Your task to perform on an android device: turn on the 24-hour format for clock Image 0: 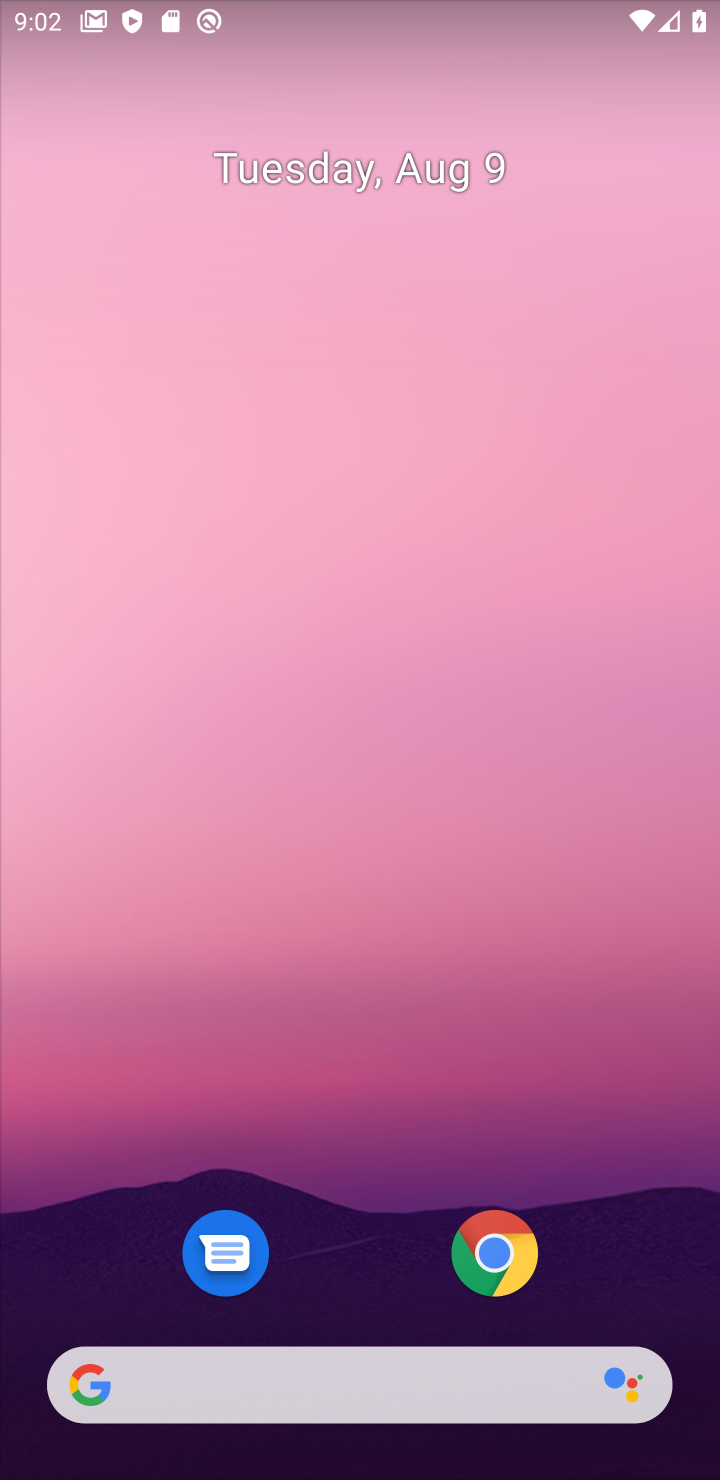
Step 0: drag from (370, 1205) to (441, 11)
Your task to perform on an android device: turn on the 24-hour format for clock Image 1: 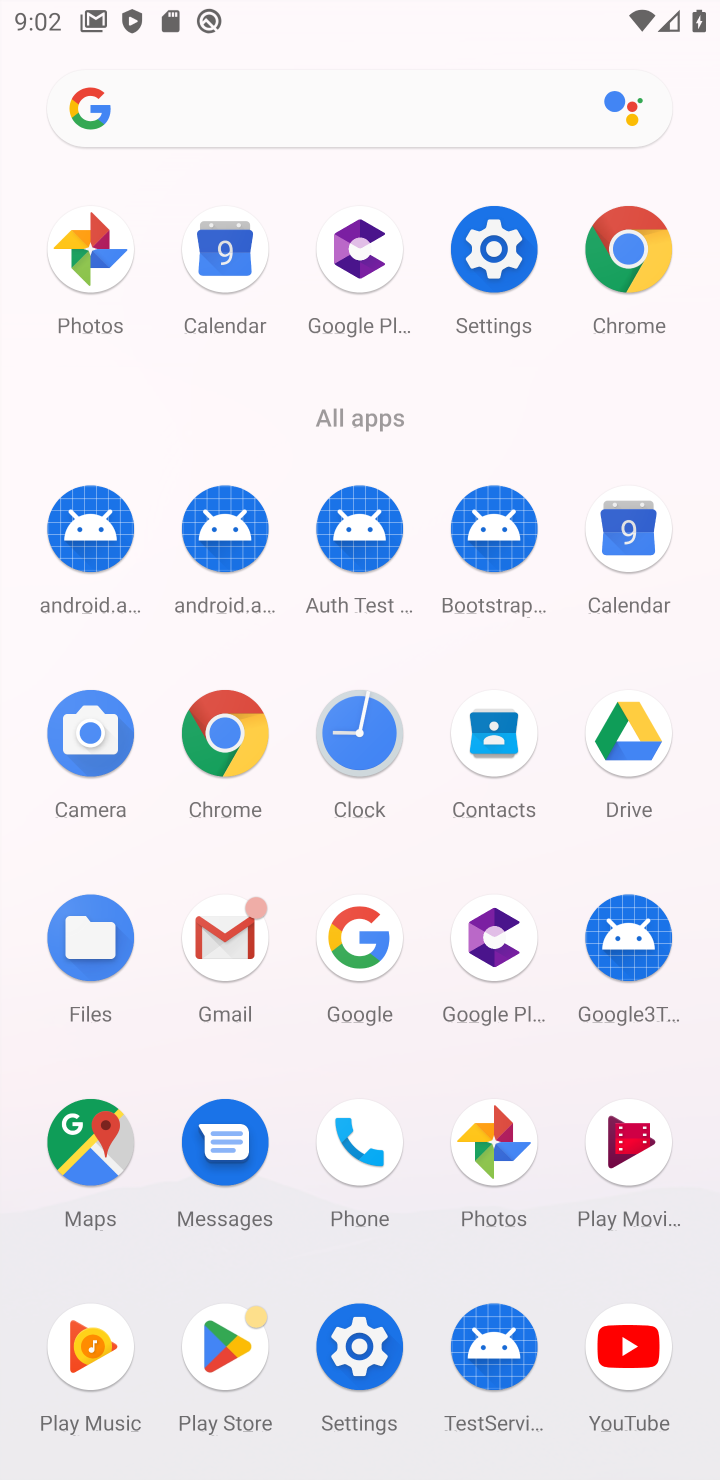
Step 1: click (343, 722)
Your task to perform on an android device: turn on the 24-hour format for clock Image 2: 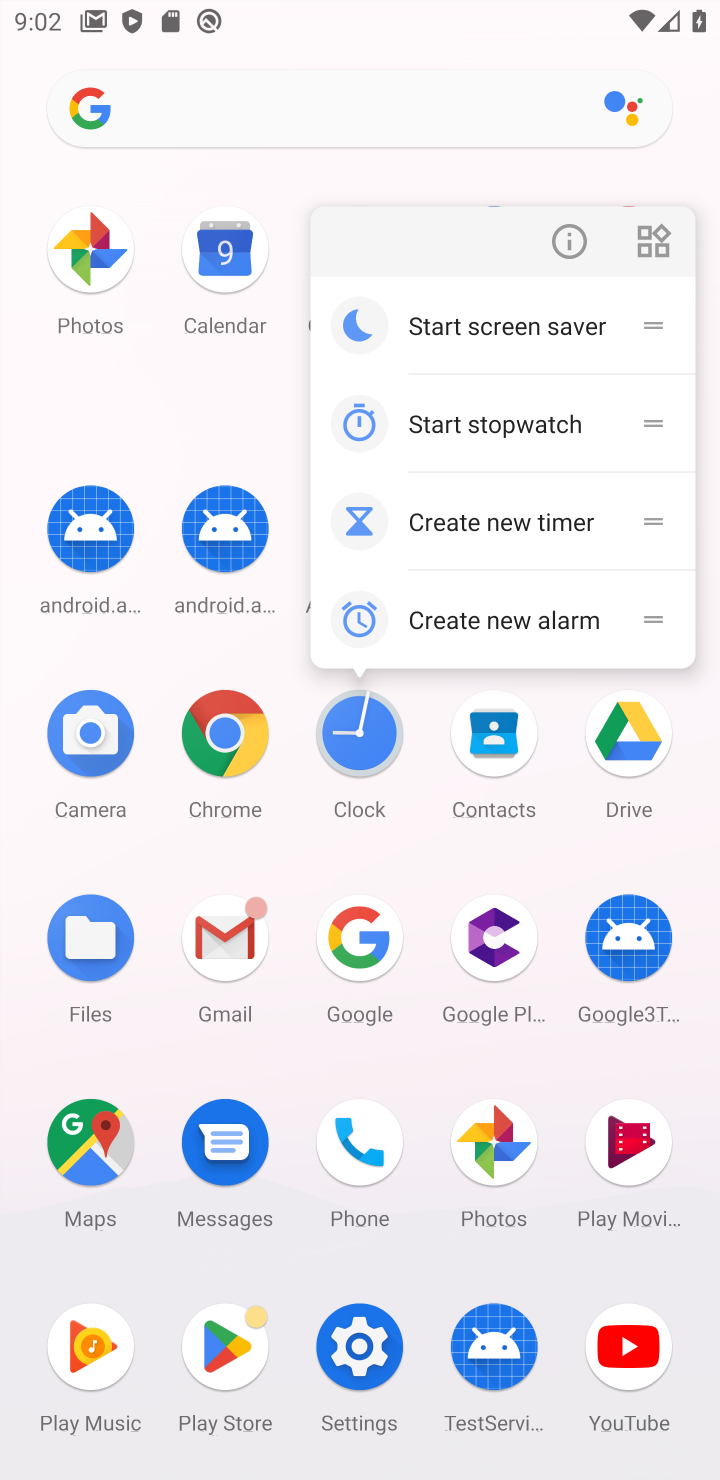
Step 2: click (352, 723)
Your task to perform on an android device: turn on the 24-hour format for clock Image 3: 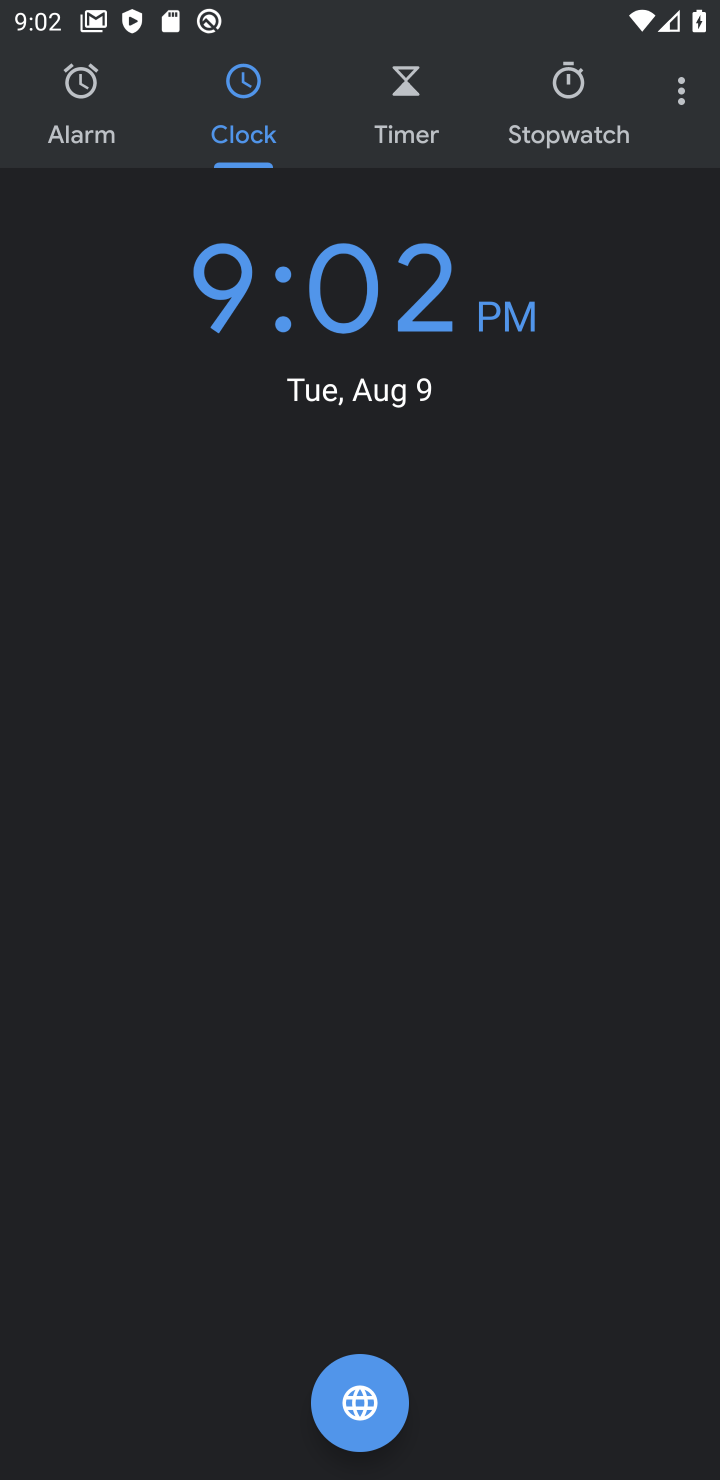
Step 3: click (684, 85)
Your task to perform on an android device: turn on the 24-hour format for clock Image 4: 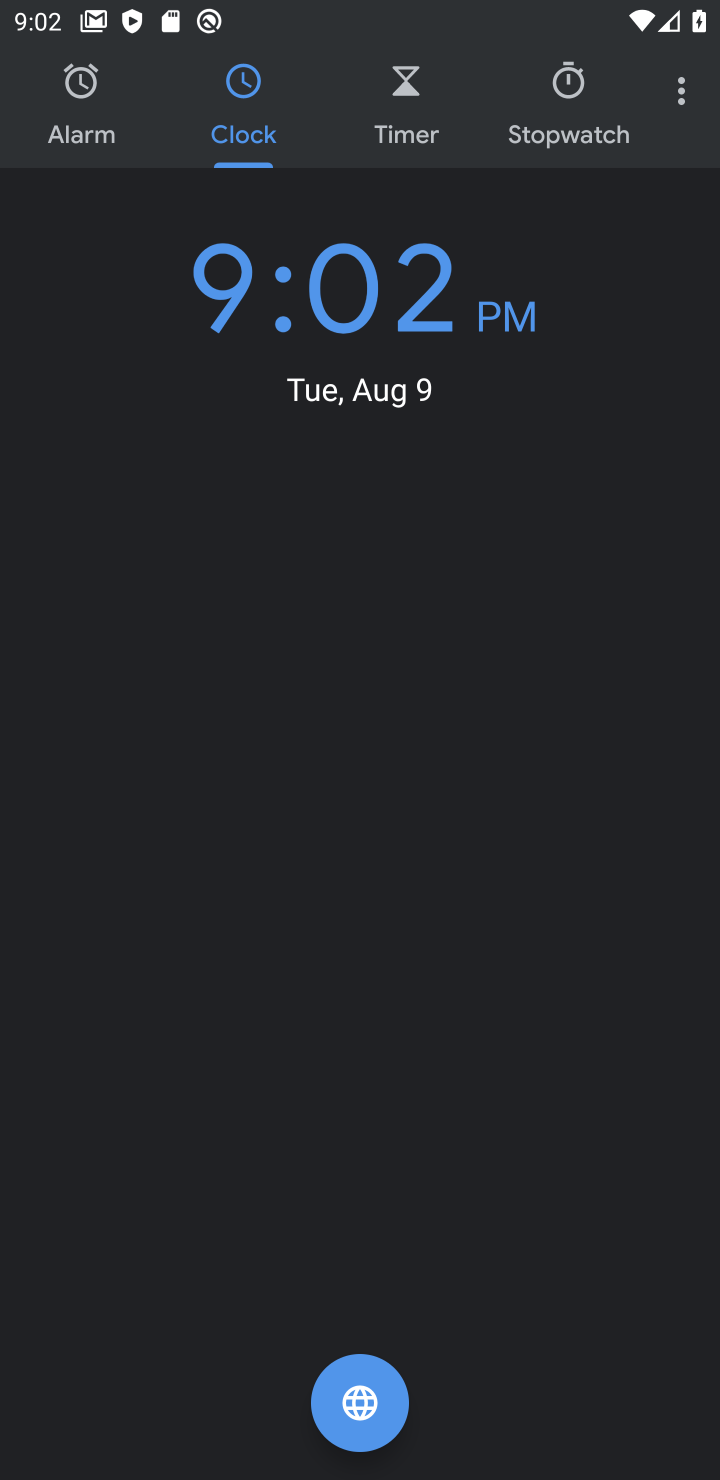
Step 4: click (690, 93)
Your task to perform on an android device: turn on the 24-hour format for clock Image 5: 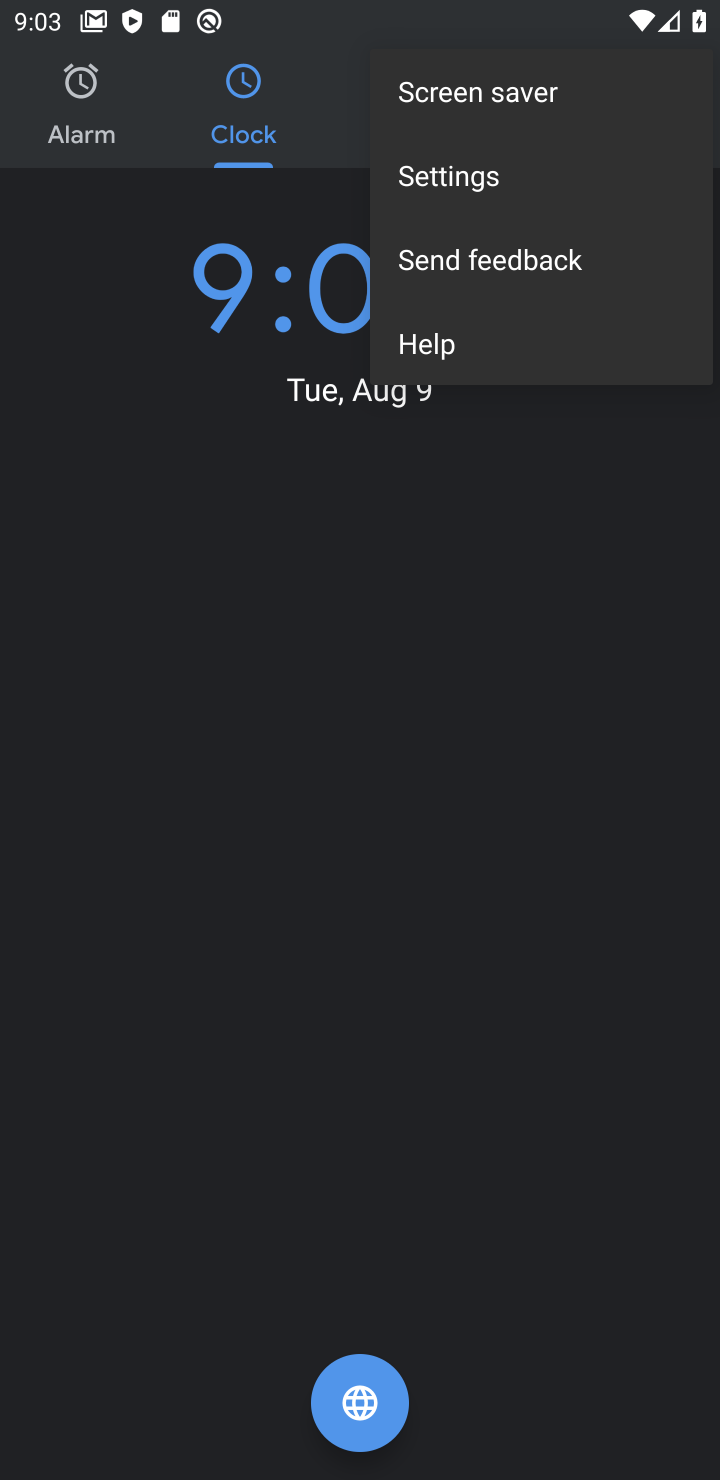
Step 5: click (473, 183)
Your task to perform on an android device: turn on the 24-hour format for clock Image 6: 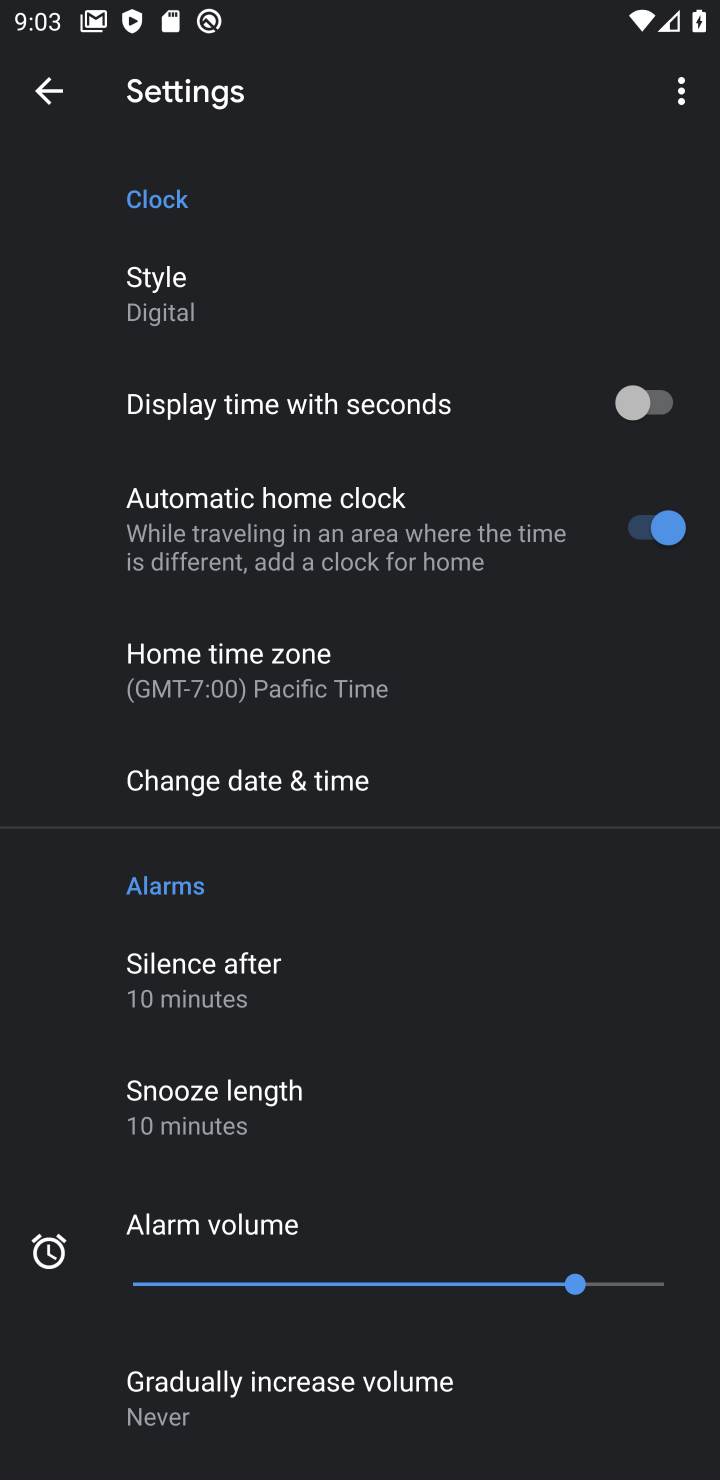
Step 6: click (338, 770)
Your task to perform on an android device: turn on the 24-hour format for clock Image 7: 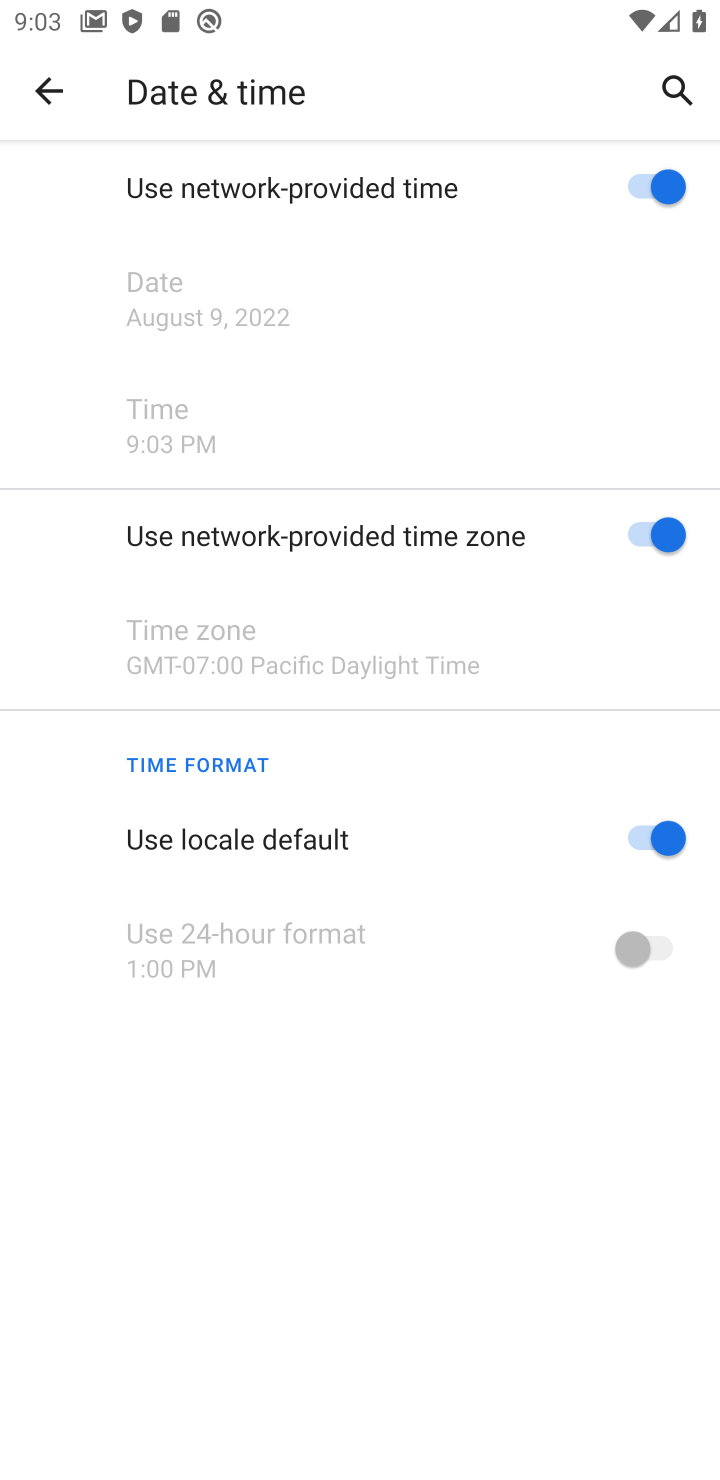
Step 7: click (669, 837)
Your task to perform on an android device: turn on the 24-hour format for clock Image 8: 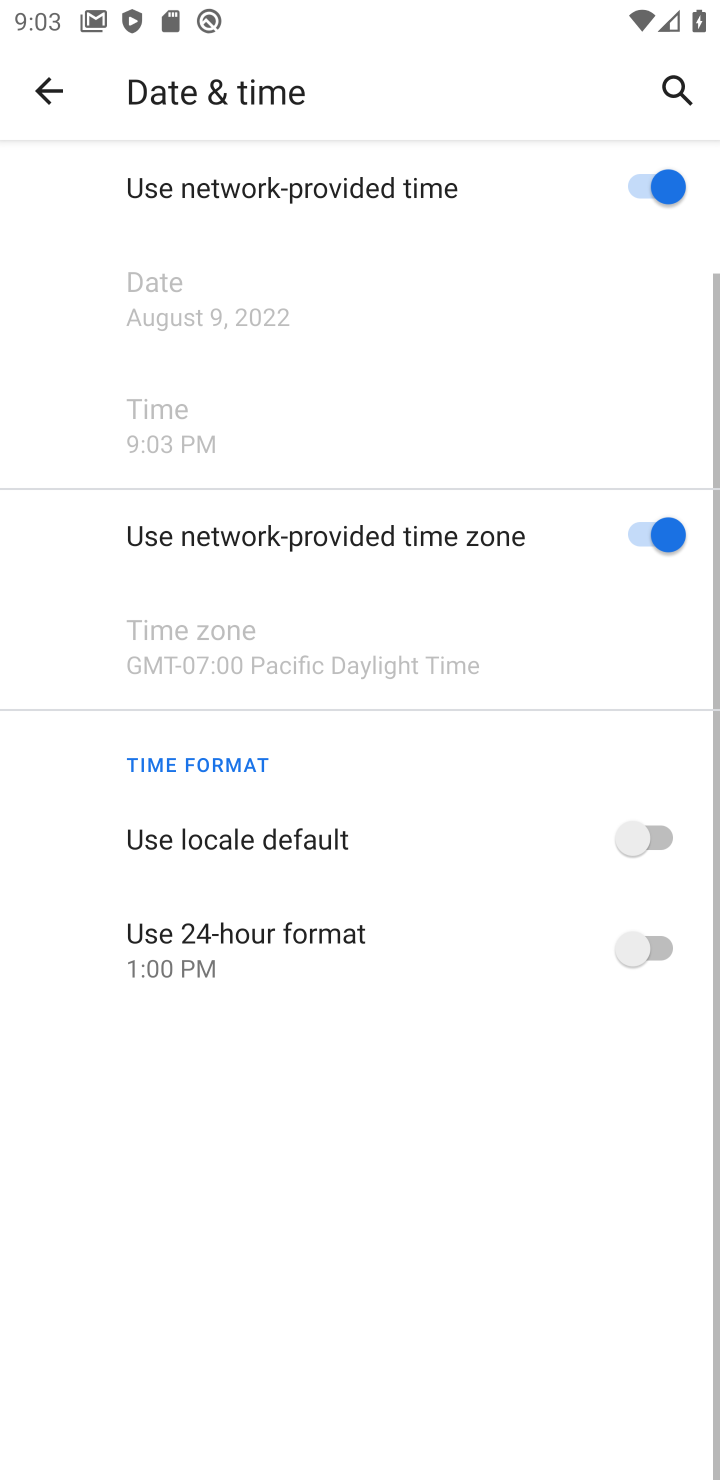
Step 8: click (668, 959)
Your task to perform on an android device: turn on the 24-hour format for clock Image 9: 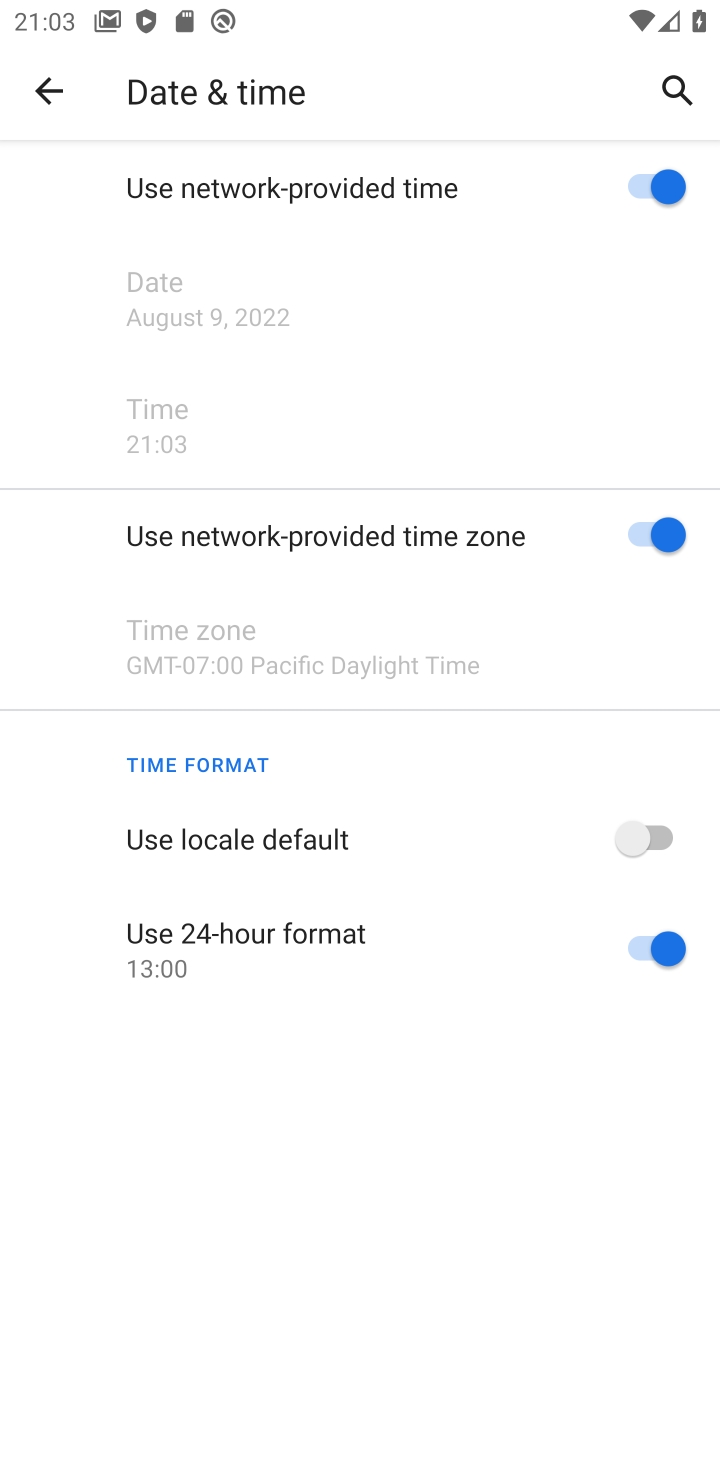
Step 9: task complete